Your task to perform on an android device: turn off wifi Image 0: 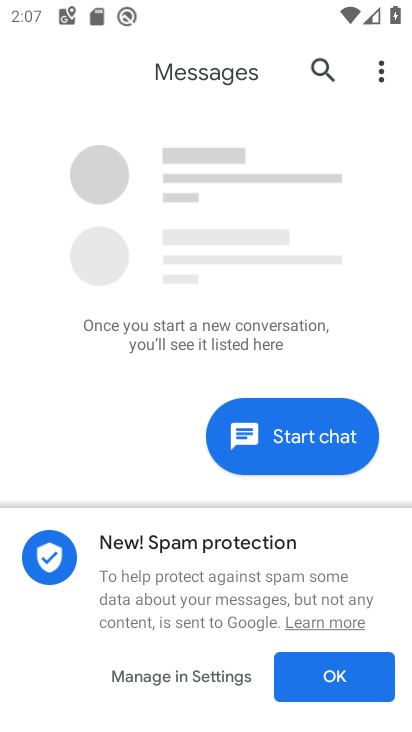
Step 0: press home button
Your task to perform on an android device: turn off wifi Image 1: 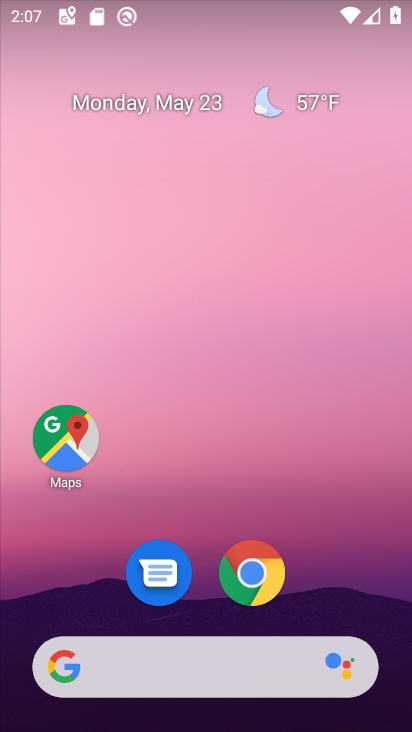
Step 1: drag from (364, 587) to (329, 128)
Your task to perform on an android device: turn off wifi Image 2: 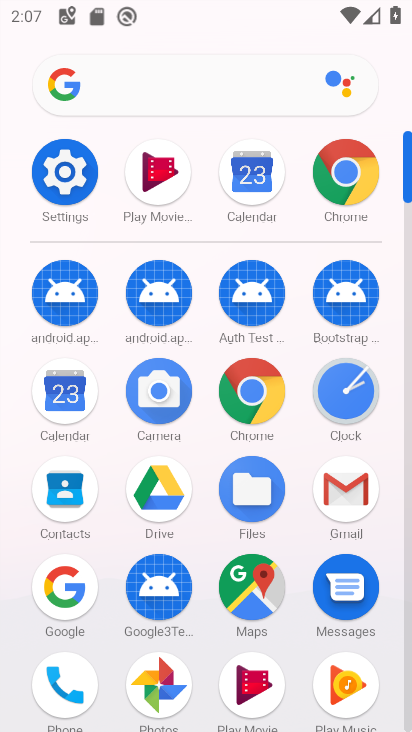
Step 2: click (58, 172)
Your task to perform on an android device: turn off wifi Image 3: 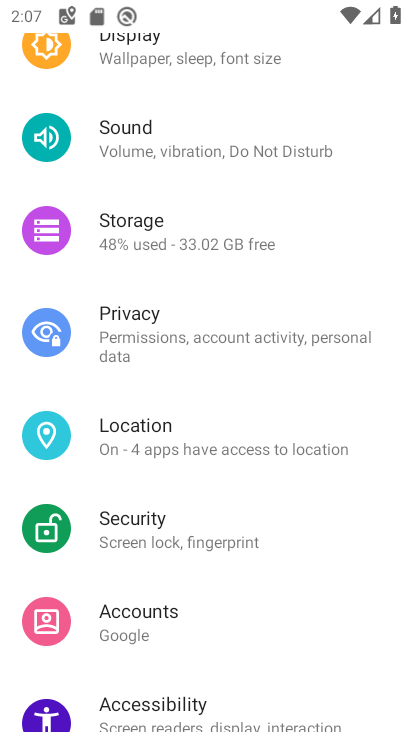
Step 3: drag from (196, 237) to (155, 625)
Your task to perform on an android device: turn off wifi Image 4: 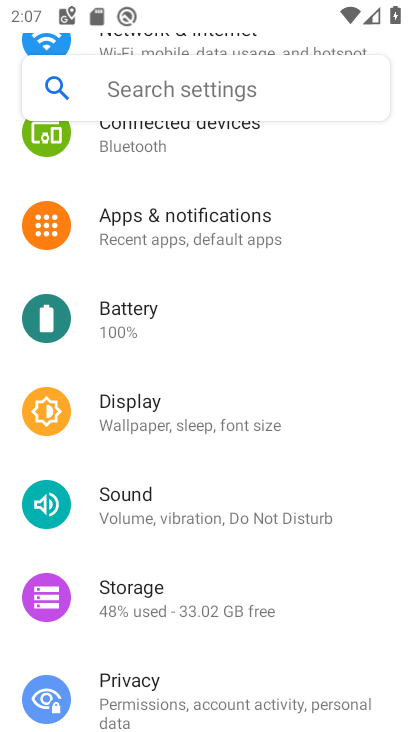
Step 4: drag from (124, 267) to (170, 618)
Your task to perform on an android device: turn off wifi Image 5: 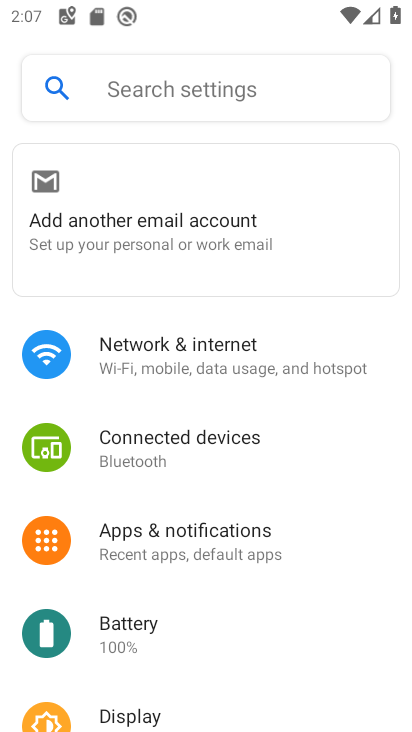
Step 5: click (183, 348)
Your task to perform on an android device: turn off wifi Image 6: 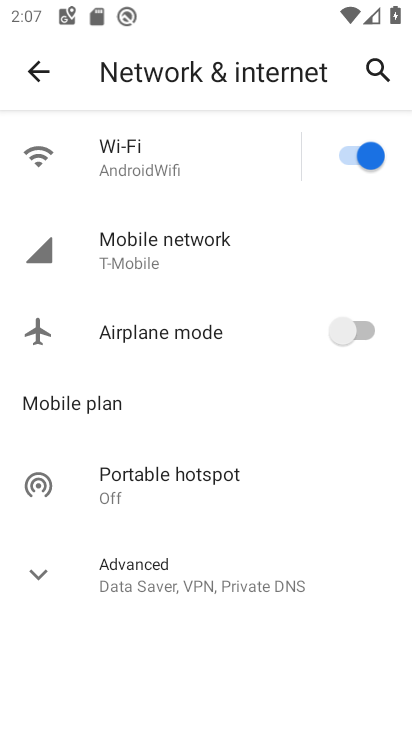
Step 6: click (362, 147)
Your task to perform on an android device: turn off wifi Image 7: 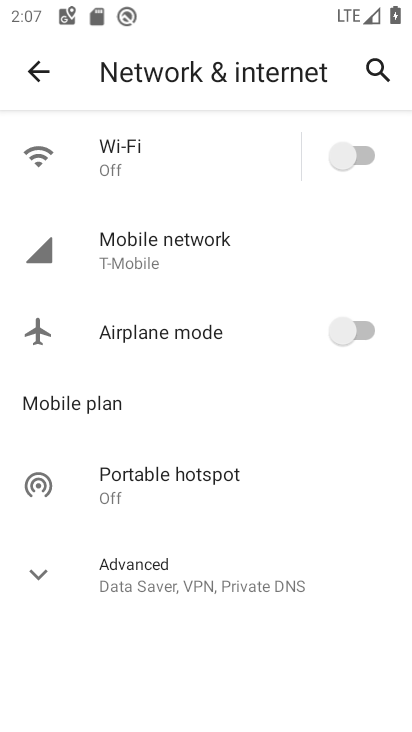
Step 7: task complete